Your task to perform on an android device: Show me recent news Image 0: 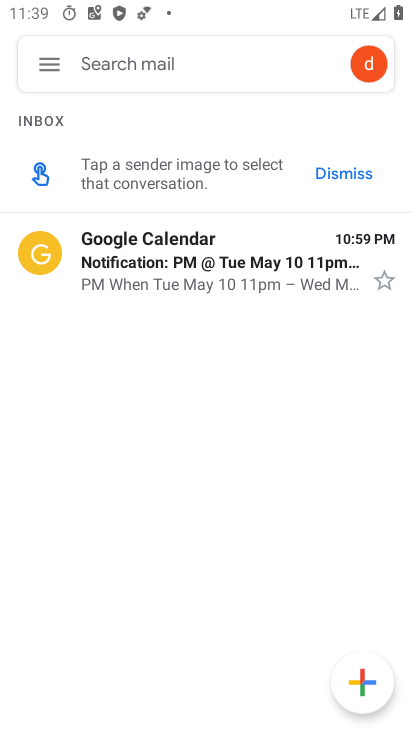
Step 0: click (364, 180)
Your task to perform on an android device: Show me recent news Image 1: 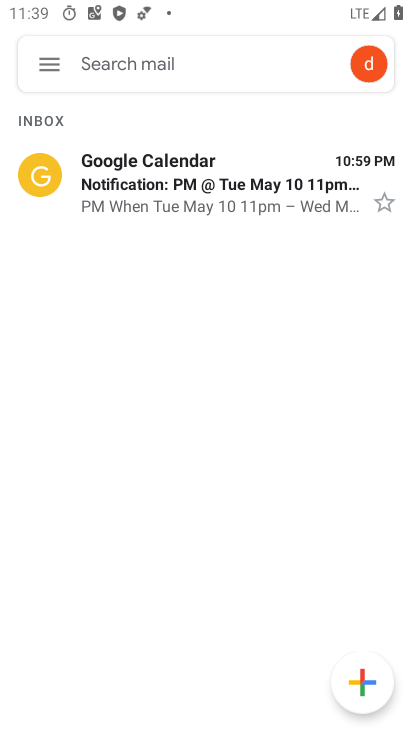
Step 1: press home button
Your task to perform on an android device: Show me recent news Image 2: 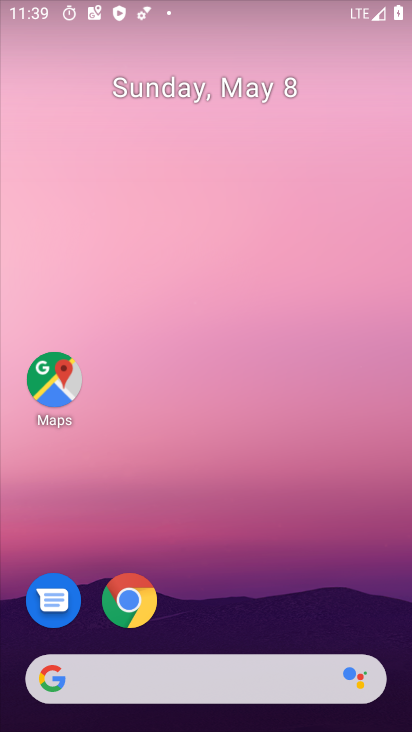
Step 2: drag from (206, 522) to (236, 168)
Your task to perform on an android device: Show me recent news Image 3: 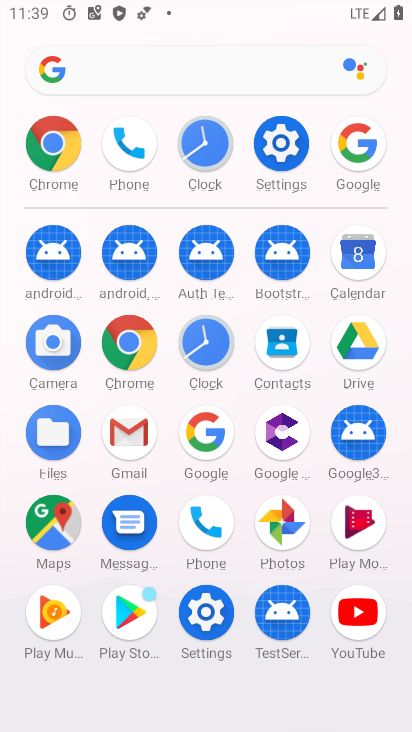
Step 3: click (205, 437)
Your task to perform on an android device: Show me recent news Image 4: 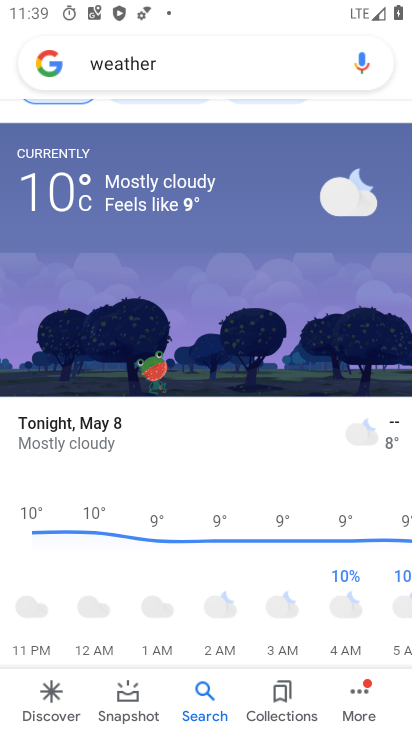
Step 4: drag from (184, 513) to (207, 244)
Your task to perform on an android device: Show me recent news Image 5: 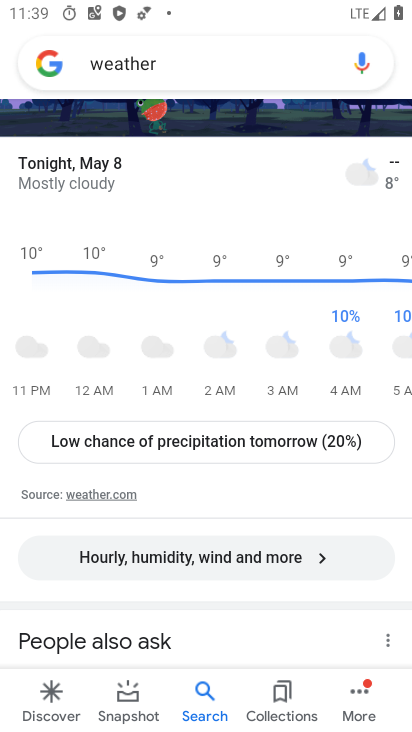
Step 5: drag from (201, 501) to (251, 233)
Your task to perform on an android device: Show me recent news Image 6: 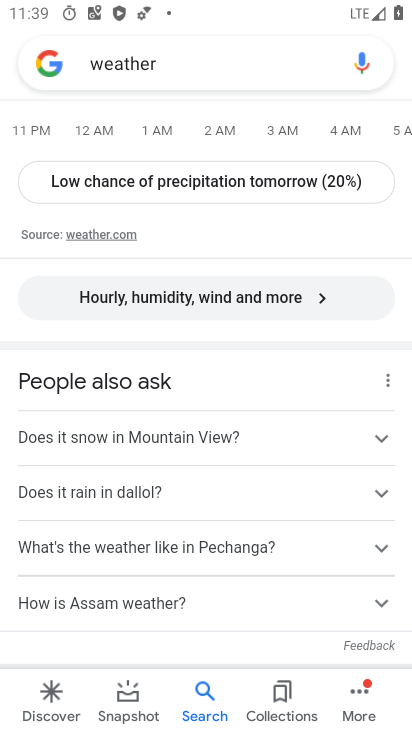
Step 6: drag from (277, 445) to (327, 227)
Your task to perform on an android device: Show me recent news Image 7: 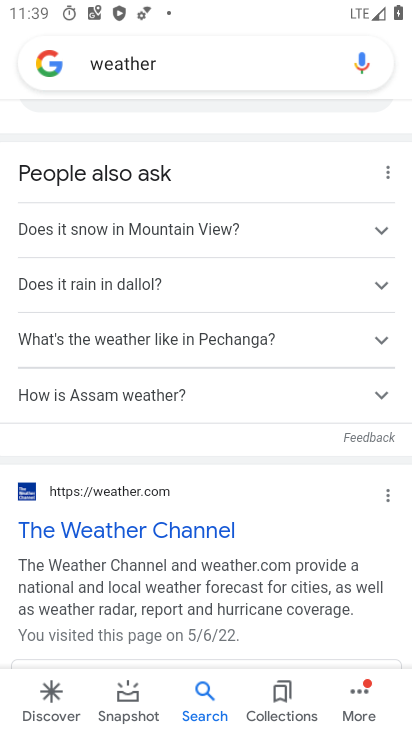
Step 7: click (48, 707)
Your task to perform on an android device: Show me recent news Image 8: 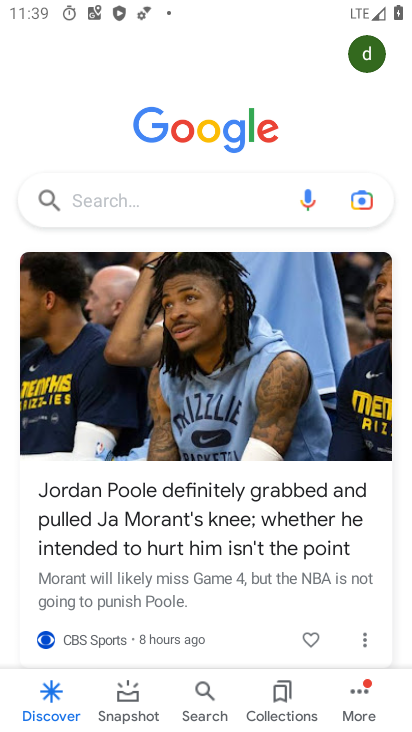
Step 8: task complete